Your task to perform on an android device: turn on airplane mode Image 0: 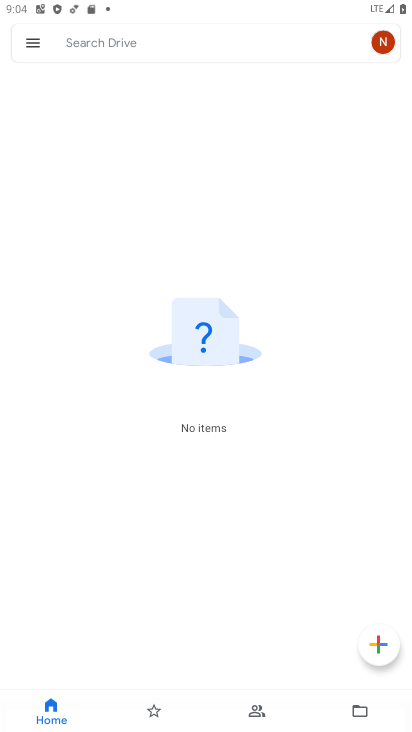
Step 0: press home button
Your task to perform on an android device: turn on airplane mode Image 1: 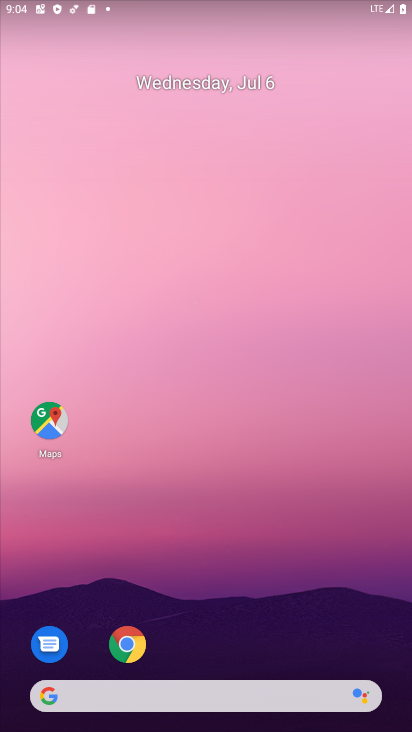
Step 1: drag from (207, 613) to (210, 98)
Your task to perform on an android device: turn on airplane mode Image 2: 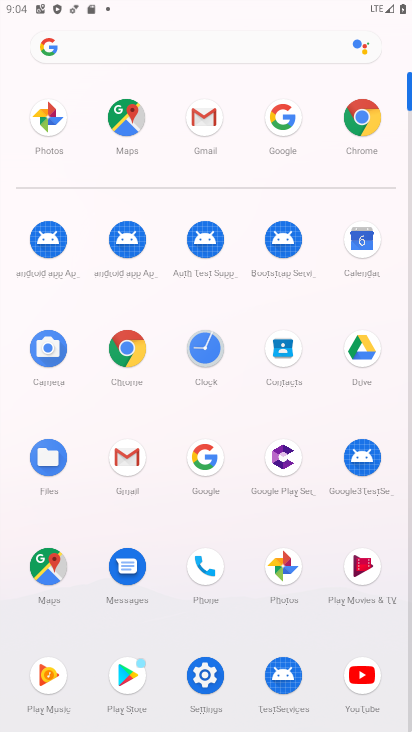
Step 2: click (203, 692)
Your task to perform on an android device: turn on airplane mode Image 3: 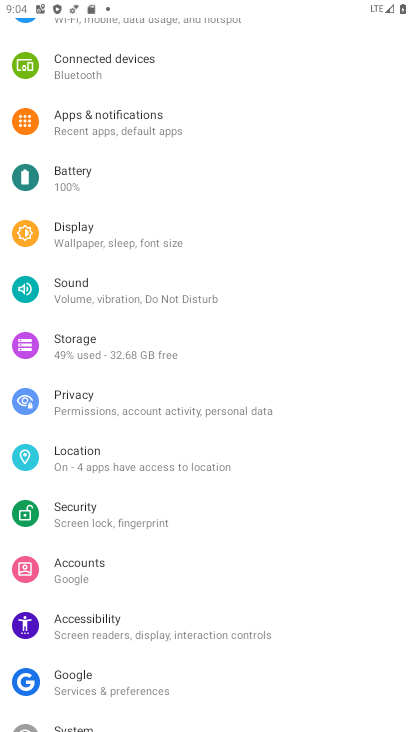
Step 3: drag from (150, 141) to (177, 536)
Your task to perform on an android device: turn on airplane mode Image 4: 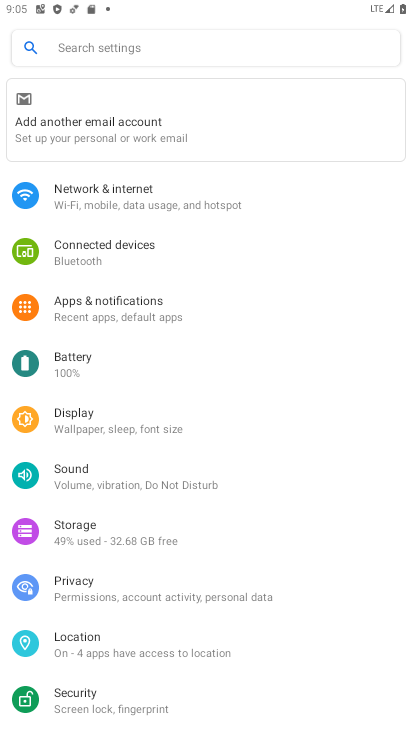
Step 4: click (181, 210)
Your task to perform on an android device: turn on airplane mode Image 5: 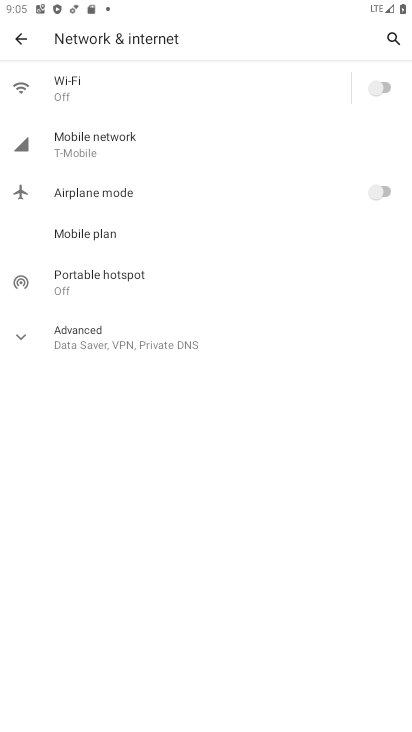
Step 5: click (385, 194)
Your task to perform on an android device: turn on airplane mode Image 6: 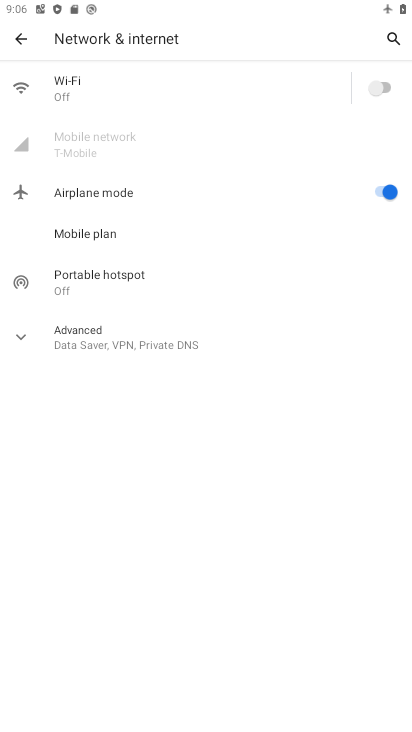
Step 6: task complete